Your task to perform on an android device: Search for hotels in Sydney Image 0: 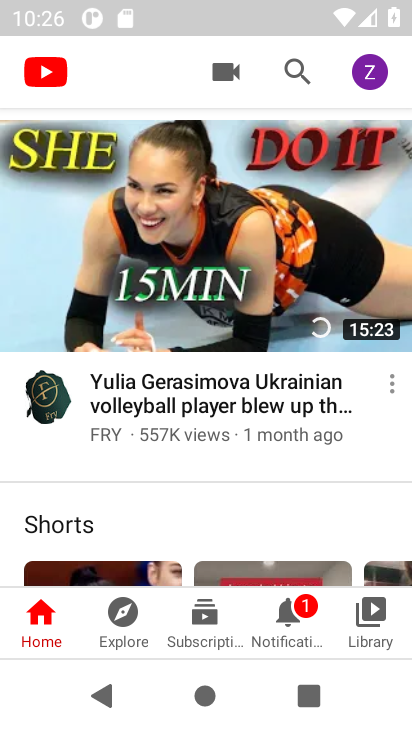
Step 0: press home button
Your task to perform on an android device: Search for hotels in Sydney Image 1: 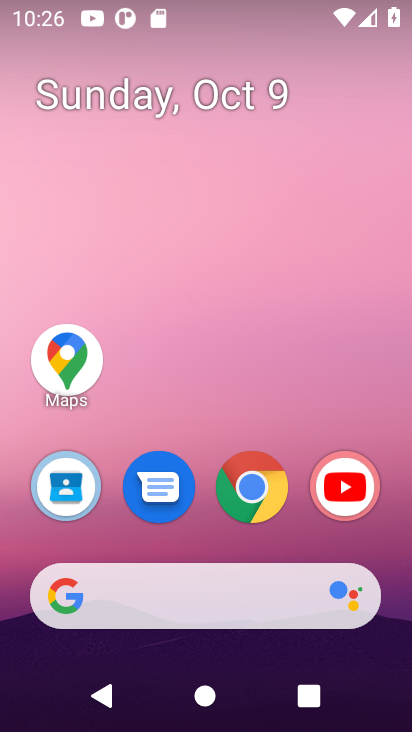
Step 1: click (277, 498)
Your task to perform on an android device: Search for hotels in Sydney Image 2: 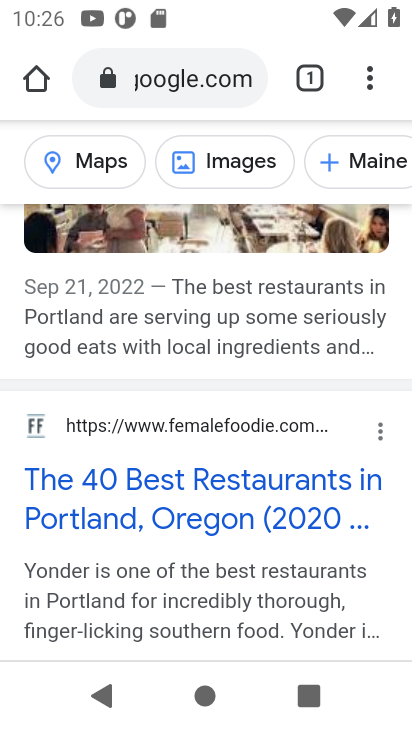
Step 2: click (206, 80)
Your task to perform on an android device: Search for hotels in Sydney Image 3: 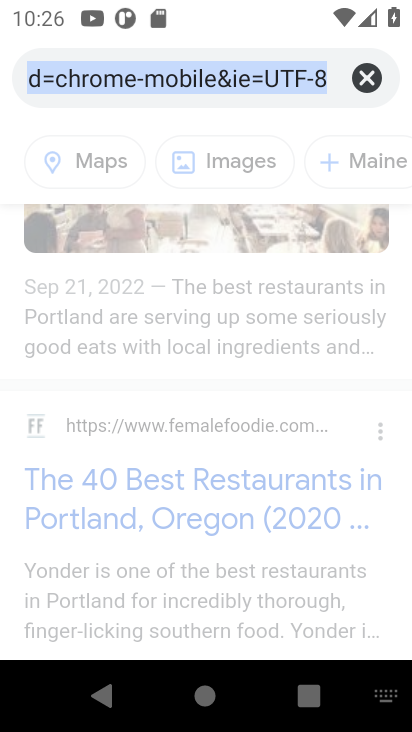
Step 3: type "hotels in sydney"
Your task to perform on an android device: Search for hotels in Sydney Image 4: 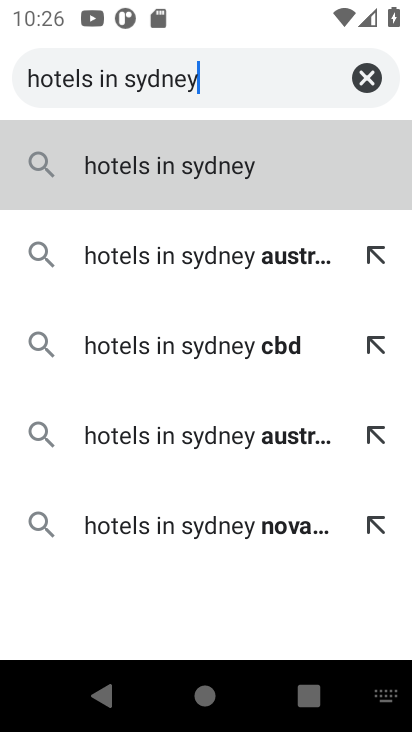
Step 4: type ""
Your task to perform on an android device: Search for hotels in Sydney Image 5: 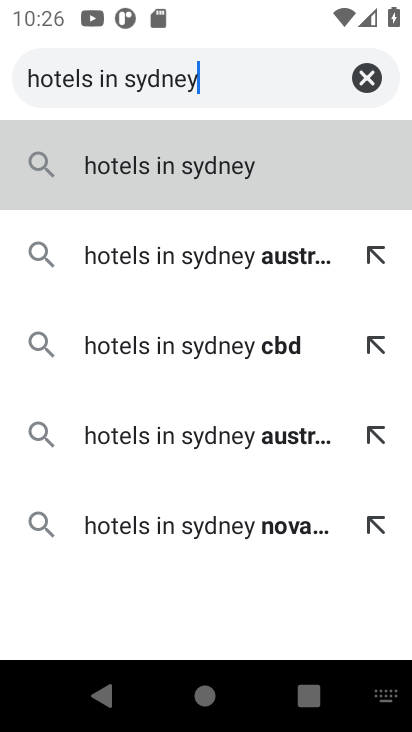
Step 5: press enter
Your task to perform on an android device: Search for hotels in Sydney Image 6: 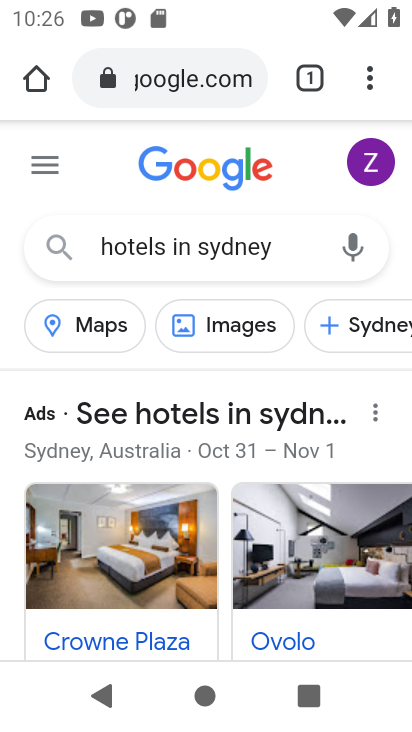
Step 6: drag from (164, 556) to (174, 203)
Your task to perform on an android device: Search for hotels in Sydney Image 7: 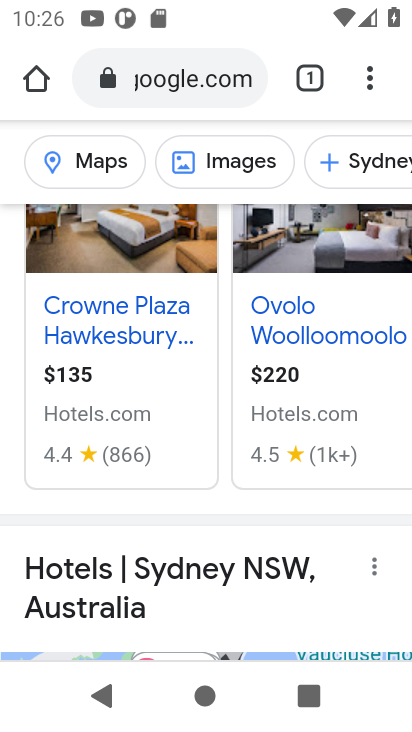
Step 7: drag from (229, 580) to (242, 256)
Your task to perform on an android device: Search for hotels in Sydney Image 8: 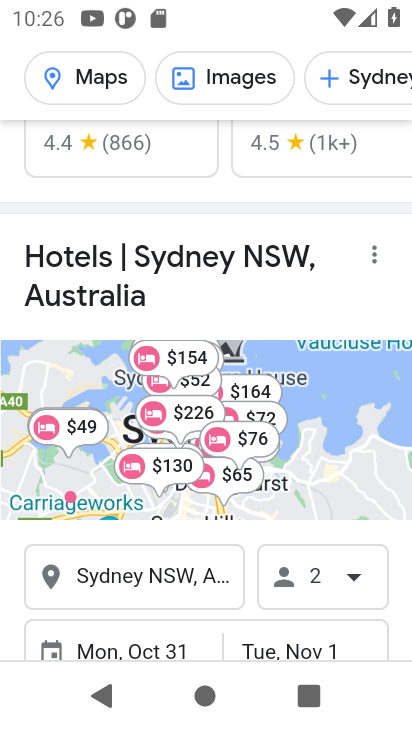
Step 8: drag from (212, 519) to (212, 250)
Your task to perform on an android device: Search for hotels in Sydney Image 9: 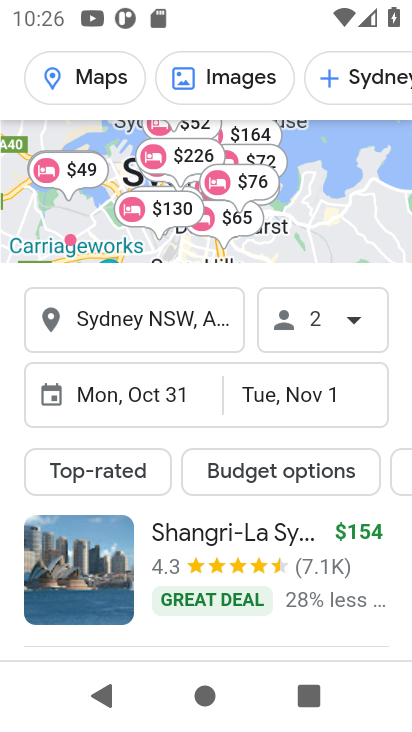
Step 9: drag from (198, 573) to (211, 209)
Your task to perform on an android device: Search for hotels in Sydney Image 10: 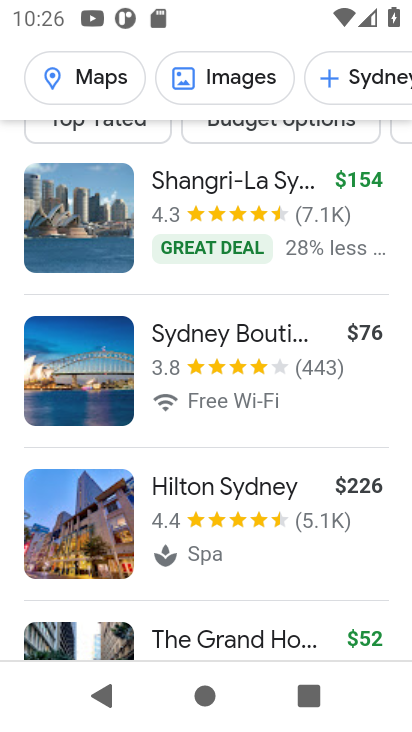
Step 10: drag from (167, 491) to (173, 238)
Your task to perform on an android device: Search for hotels in Sydney Image 11: 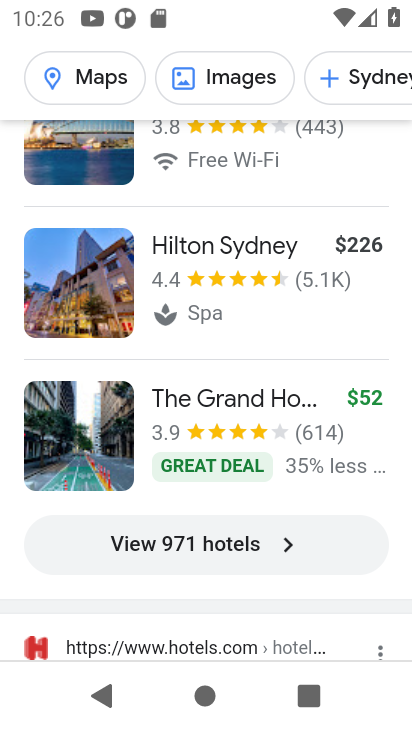
Step 11: drag from (161, 571) to (188, 270)
Your task to perform on an android device: Search for hotels in Sydney Image 12: 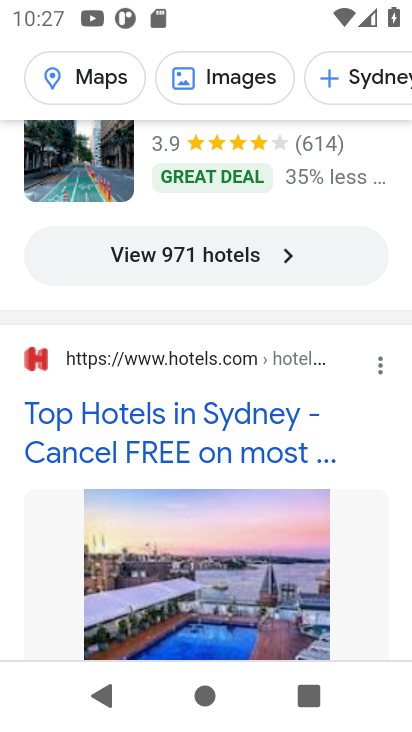
Step 12: click (183, 427)
Your task to perform on an android device: Search for hotels in Sydney Image 13: 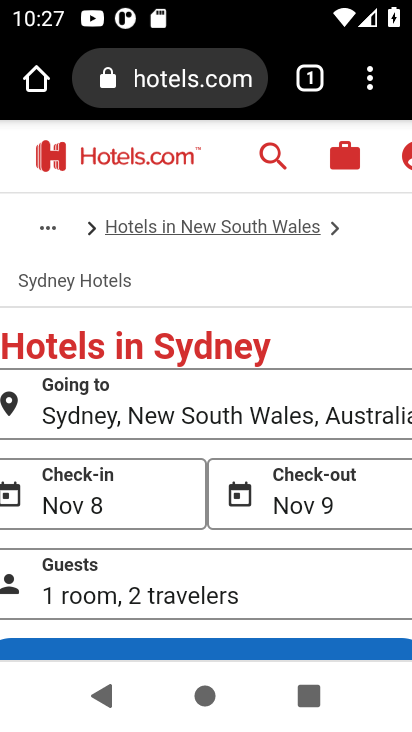
Step 13: task complete